Your task to perform on an android device: Open Amazon Image 0: 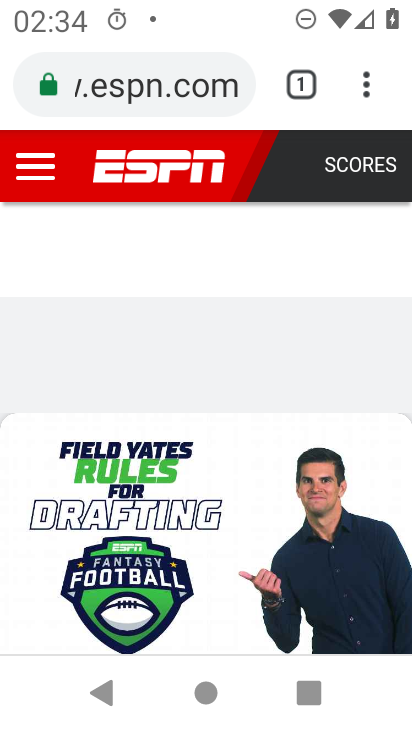
Step 0: press home button
Your task to perform on an android device: Open Amazon Image 1: 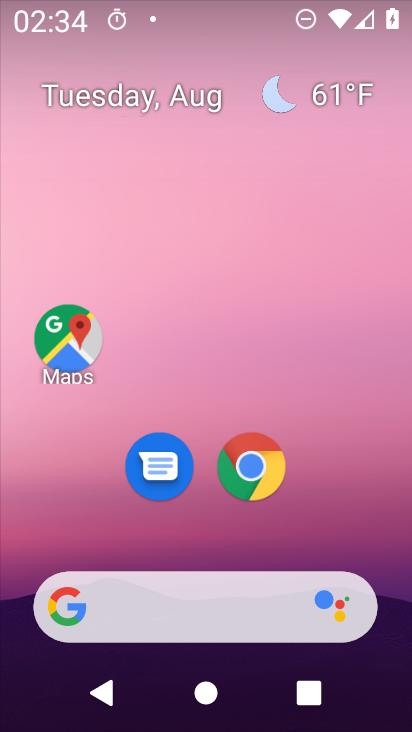
Step 1: drag from (378, 554) to (381, 129)
Your task to perform on an android device: Open Amazon Image 2: 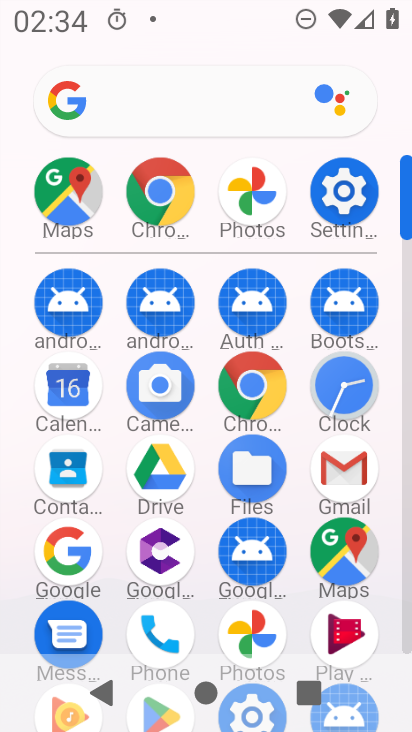
Step 2: click (262, 393)
Your task to perform on an android device: Open Amazon Image 3: 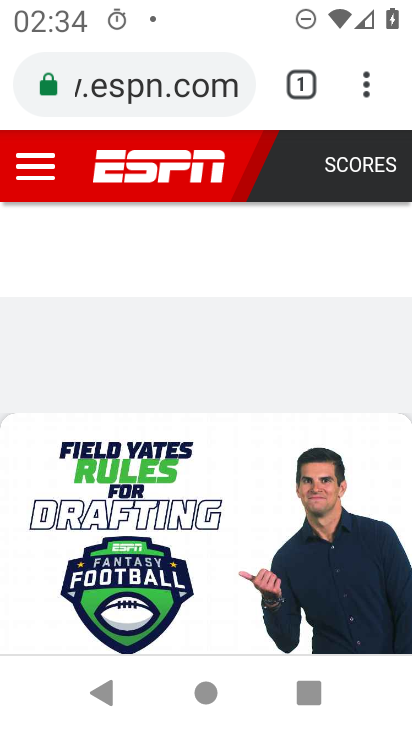
Step 3: click (197, 83)
Your task to perform on an android device: Open Amazon Image 4: 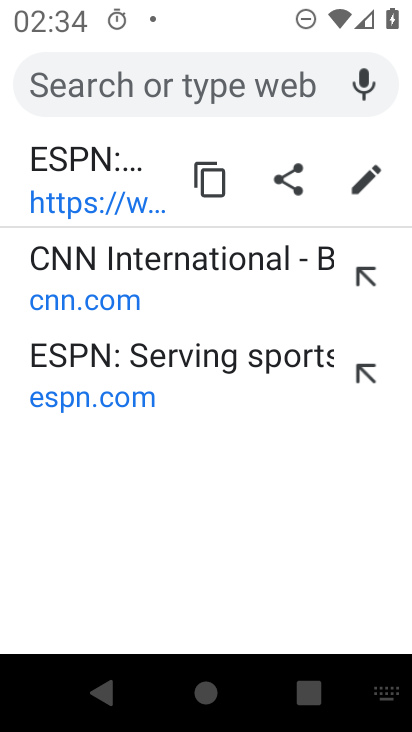
Step 4: type "amazon"
Your task to perform on an android device: Open Amazon Image 5: 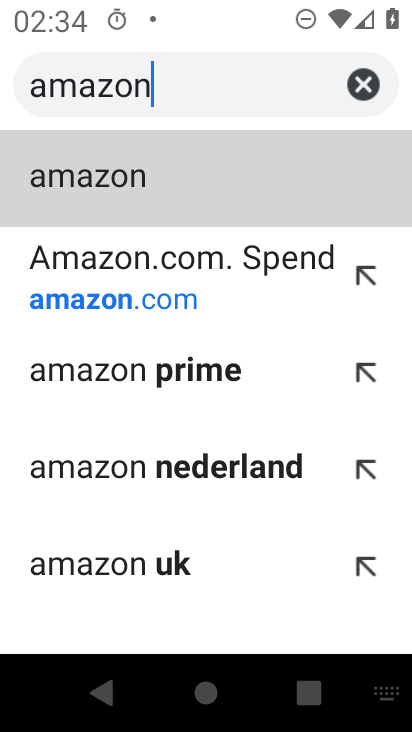
Step 5: click (307, 181)
Your task to perform on an android device: Open Amazon Image 6: 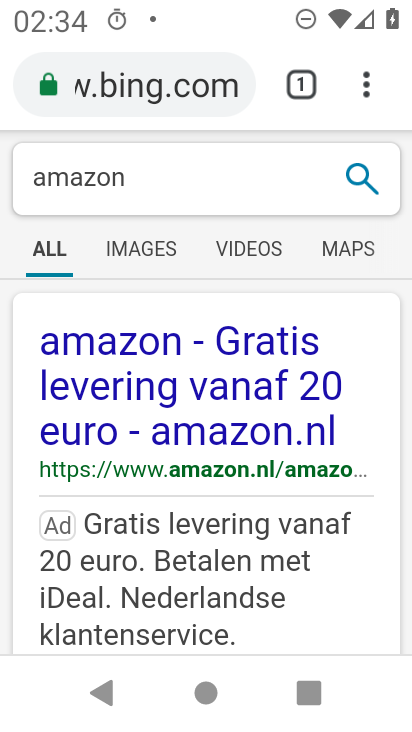
Step 6: task complete